Your task to perform on an android device: Go to CNN.com Image 0: 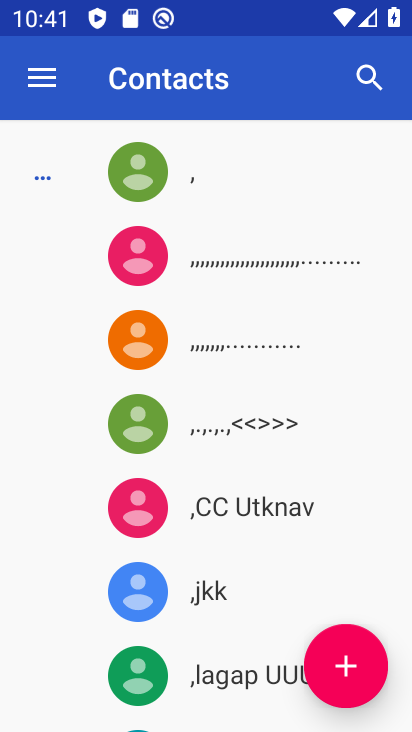
Step 0: press home button
Your task to perform on an android device: Go to CNN.com Image 1: 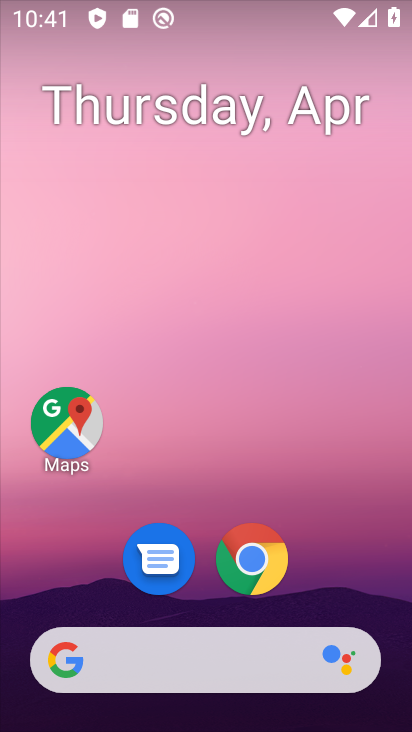
Step 1: drag from (278, 613) to (292, 347)
Your task to perform on an android device: Go to CNN.com Image 2: 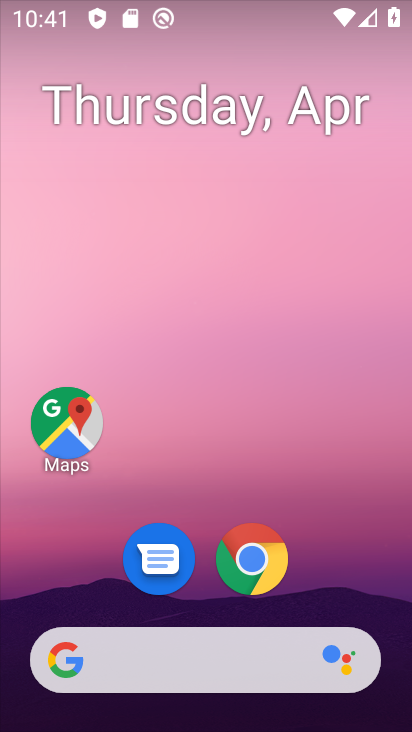
Step 2: drag from (285, 615) to (230, 224)
Your task to perform on an android device: Go to CNN.com Image 3: 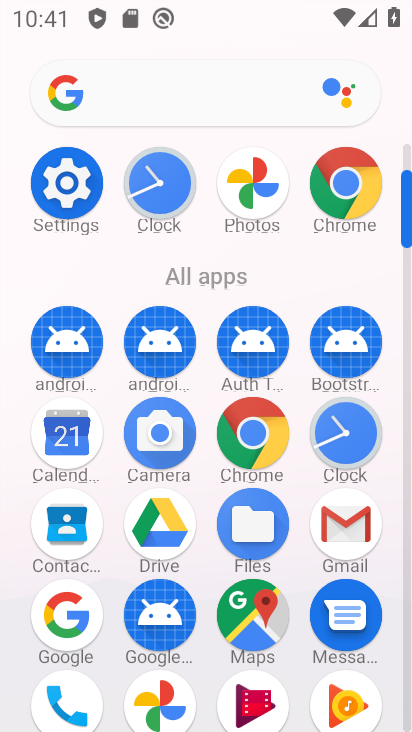
Step 3: click (351, 180)
Your task to perform on an android device: Go to CNN.com Image 4: 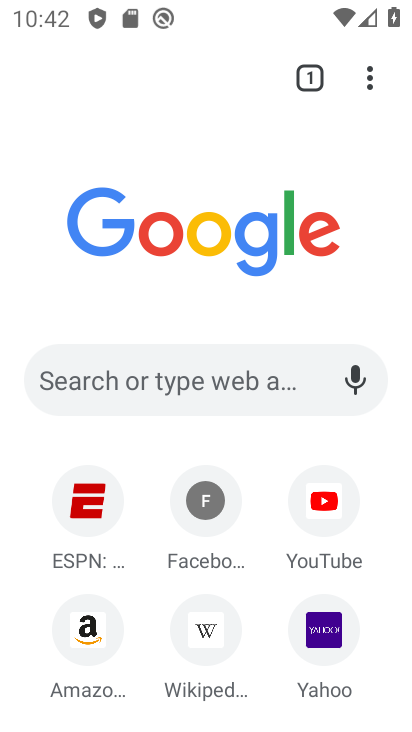
Step 4: click (179, 382)
Your task to perform on an android device: Go to CNN.com Image 5: 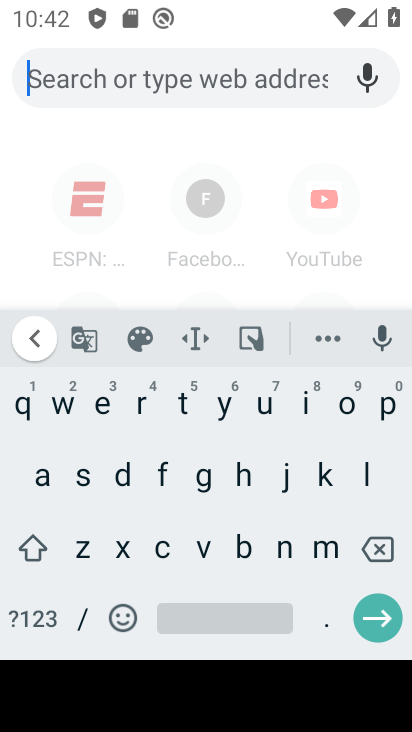
Step 5: click (163, 543)
Your task to perform on an android device: Go to CNN.com Image 6: 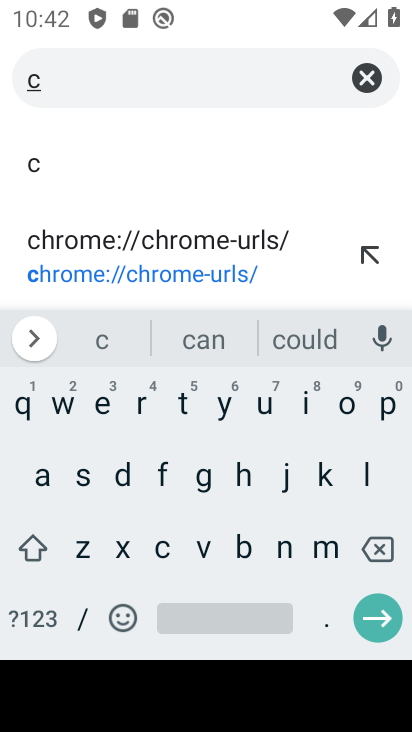
Step 6: click (279, 542)
Your task to perform on an android device: Go to CNN.com Image 7: 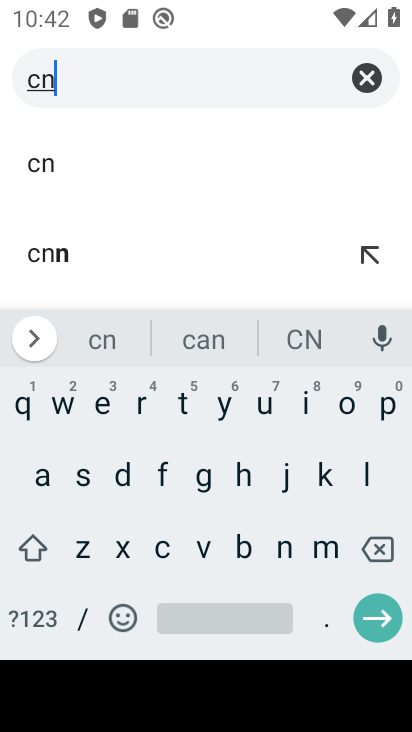
Step 7: click (68, 255)
Your task to perform on an android device: Go to CNN.com Image 8: 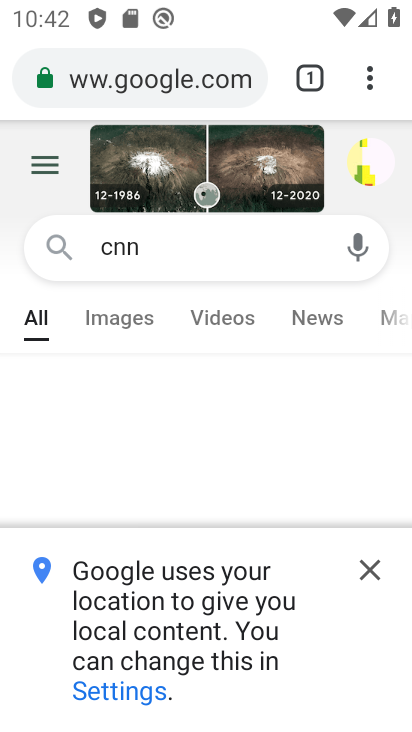
Step 8: click (369, 578)
Your task to perform on an android device: Go to CNN.com Image 9: 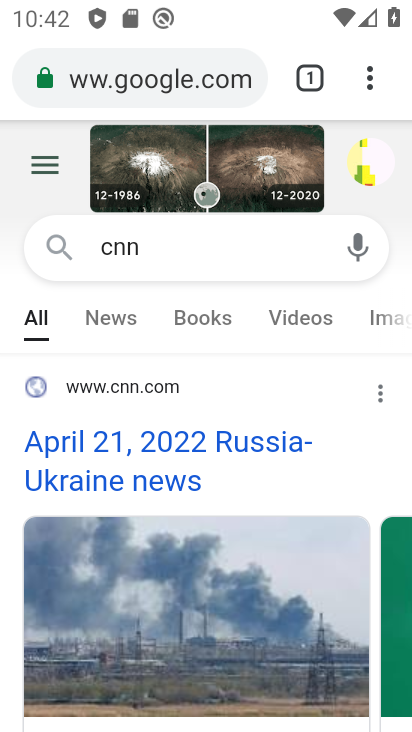
Step 9: click (156, 455)
Your task to perform on an android device: Go to CNN.com Image 10: 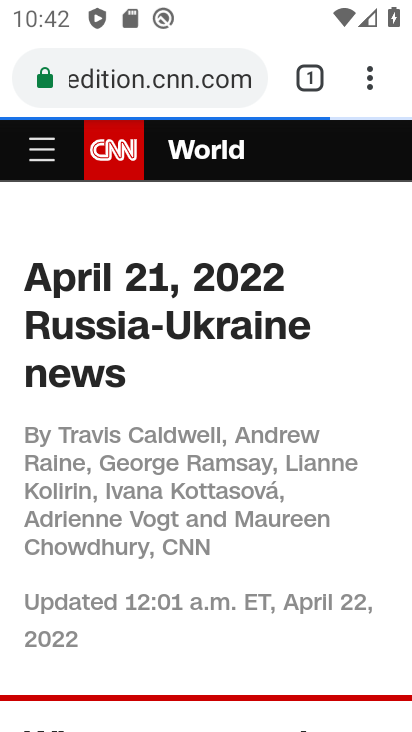
Step 10: task complete